Your task to perform on an android device: turn on the 24-hour format for clock Image 0: 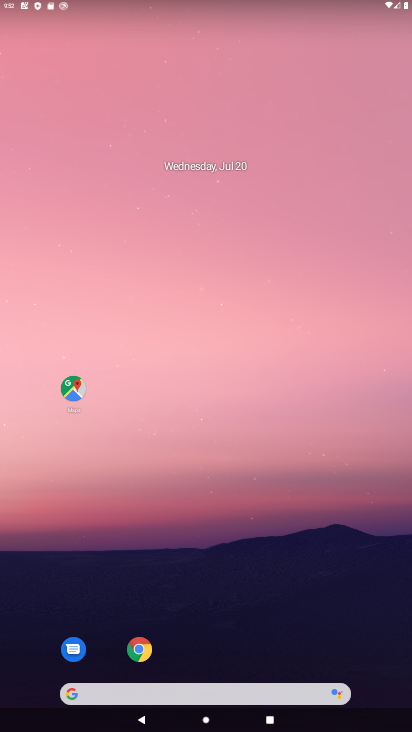
Step 0: drag from (200, 658) to (180, 174)
Your task to perform on an android device: turn on the 24-hour format for clock Image 1: 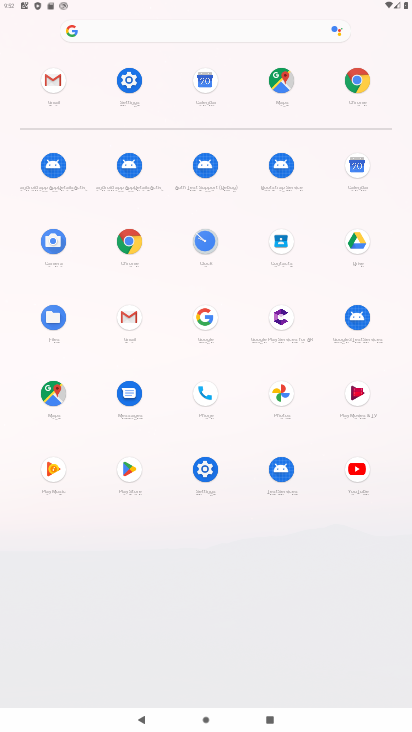
Step 1: click (196, 255)
Your task to perform on an android device: turn on the 24-hour format for clock Image 2: 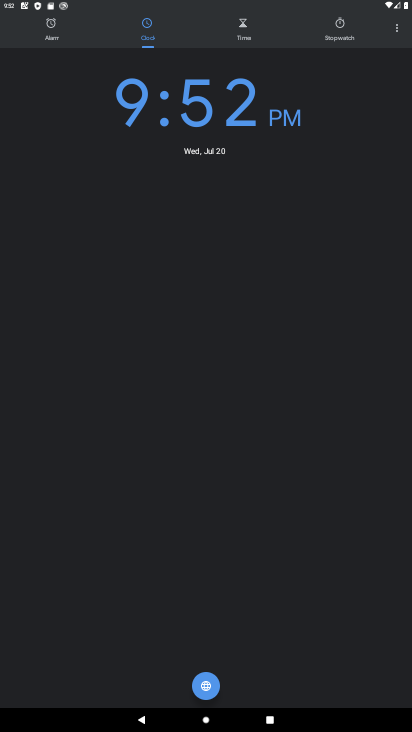
Step 2: click (392, 31)
Your task to perform on an android device: turn on the 24-hour format for clock Image 3: 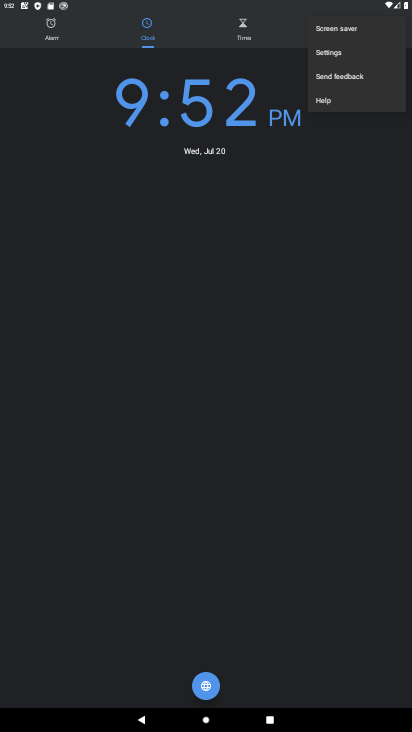
Step 3: click (350, 56)
Your task to perform on an android device: turn on the 24-hour format for clock Image 4: 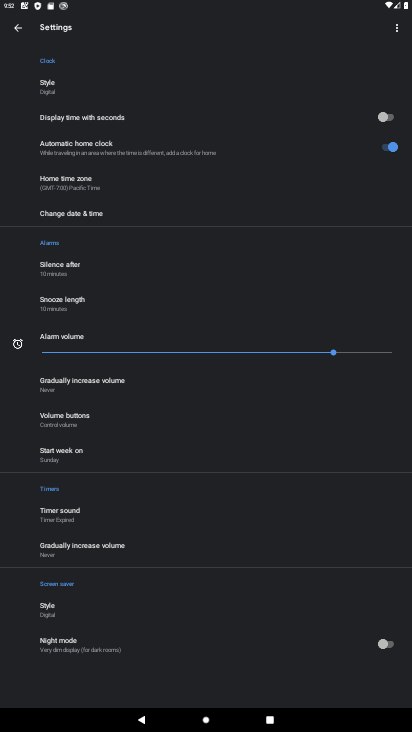
Step 4: task complete